Your task to perform on an android device: read, delete, or share a saved page in the chrome app Image 0: 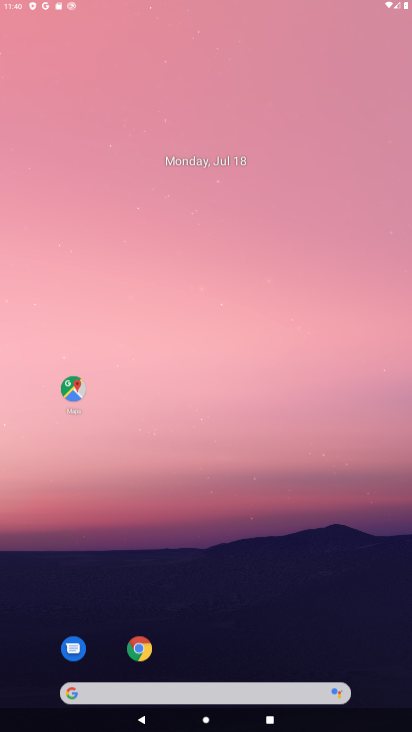
Step 0: click (261, 276)
Your task to perform on an android device: read, delete, or share a saved page in the chrome app Image 1: 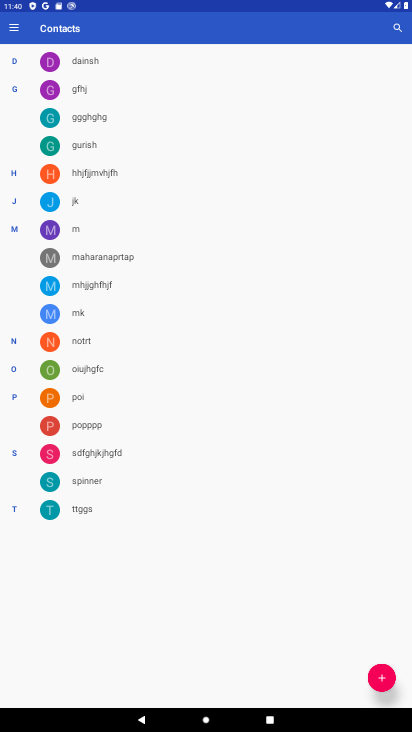
Step 1: press home button
Your task to perform on an android device: read, delete, or share a saved page in the chrome app Image 2: 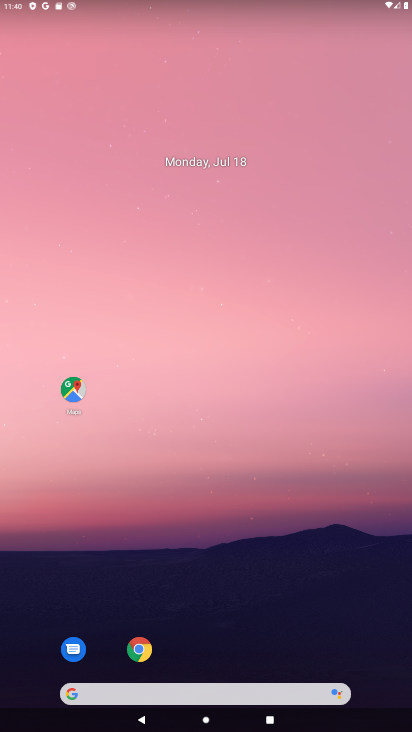
Step 2: drag from (246, 656) to (299, 176)
Your task to perform on an android device: read, delete, or share a saved page in the chrome app Image 3: 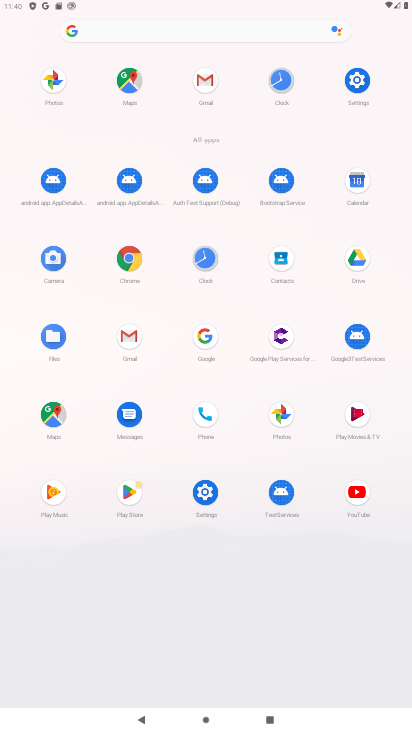
Step 3: click (120, 252)
Your task to perform on an android device: read, delete, or share a saved page in the chrome app Image 4: 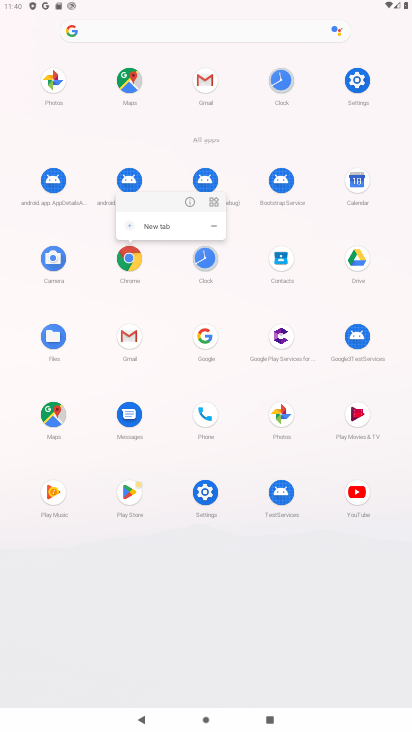
Step 4: click (129, 257)
Your task to perform on an android device: read, delete, or share a saved page in the chrome app Image 5: 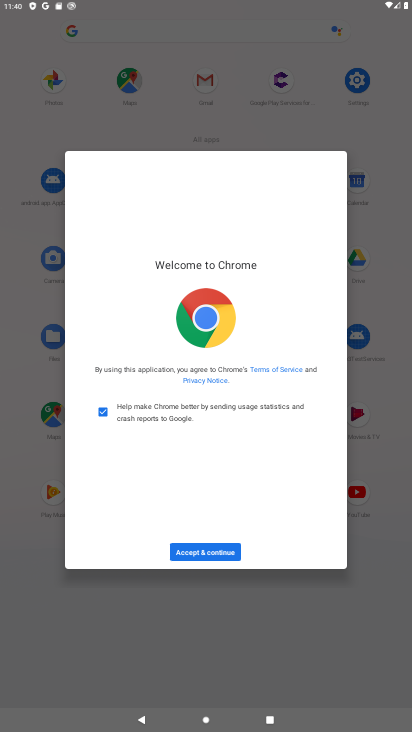
Step 5: click (223, 543)
Your task to perform on an android device: read, delete, or share a saved page in the chrome app Image 6: 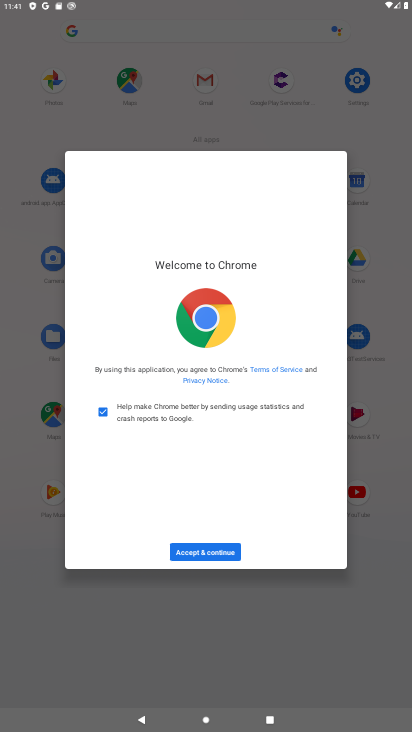
Step 6: click (228, 556)
Your task to perform on an android device: read, delete, or share a saved page in the chrome app Image 7: 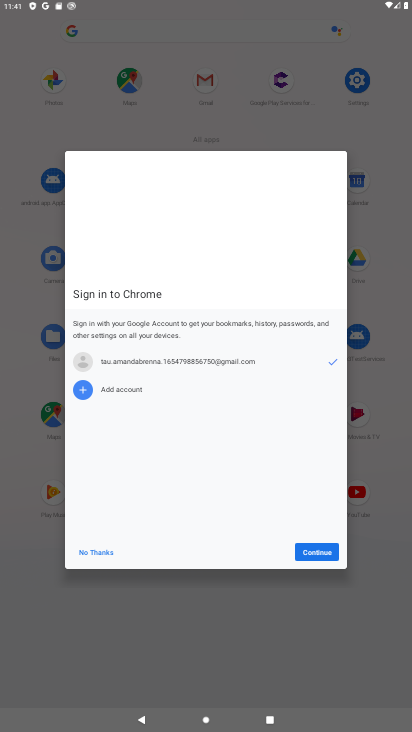
Step 7: click (311, 549)
Your task to perform on an android device: read, delete, or share a saved page in the chrome app Image 8: 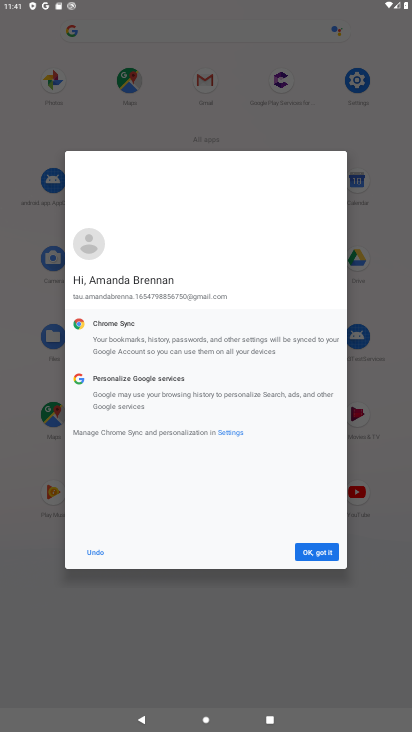
Step 8: click (311, 549)
Your task to perform on an android device: read, delete, or share a saved page in the chrome app Image 9: 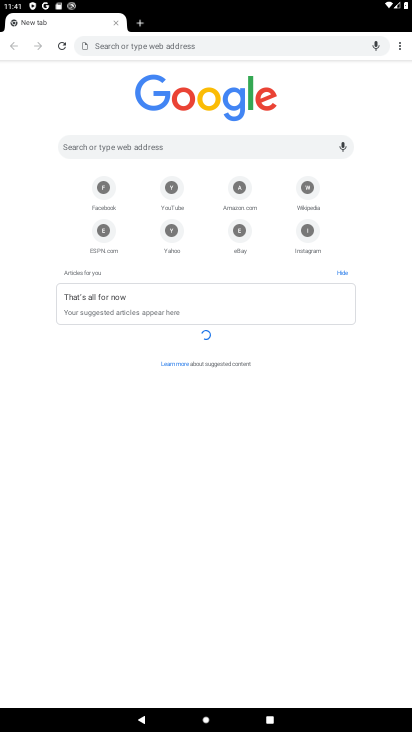
Step 9: drag from (400, 43) to (340, 164)
Your task to perform on an android device: read, delete, or share a saved page in the chrome app Image 10: 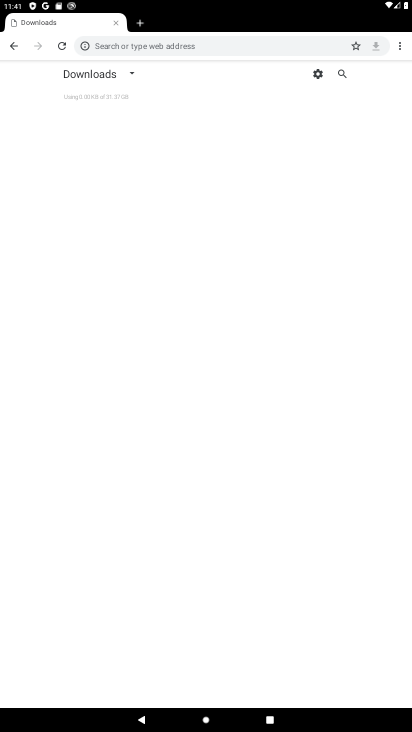
Step 10: click (90, 82)
Your task to perform on an android device: read, delete, or share a saved page in the chrome app Image 11: 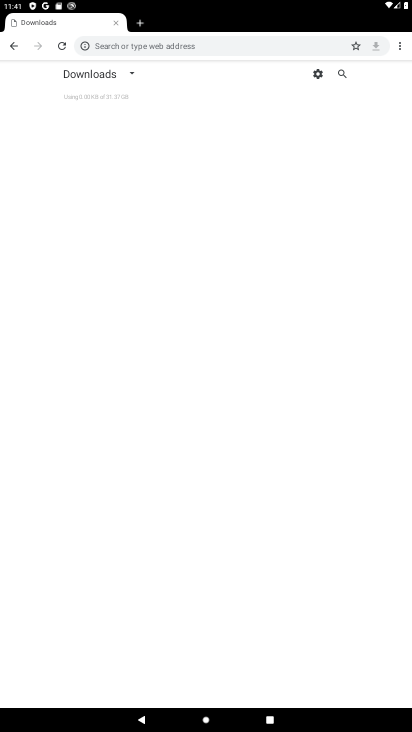
Step 11: click (126, 75)
Your task to perform on an android device: read, delete, or share a saved page in the chrome app Image 12: 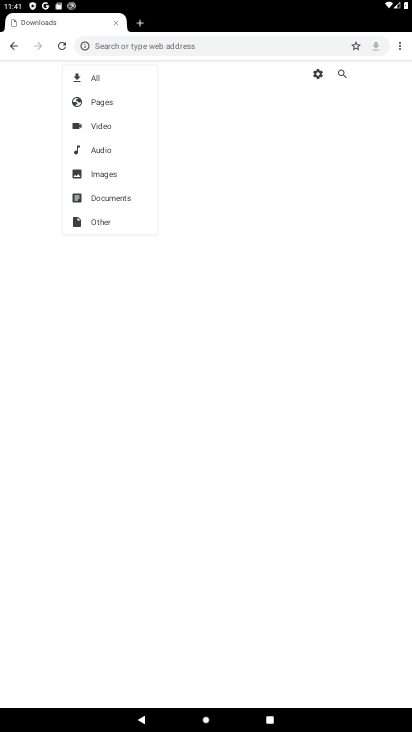
Step 12: click (113, 106)
Your task to perform on an android device: read, delete, or share a saved page in the chrome app Image 13: 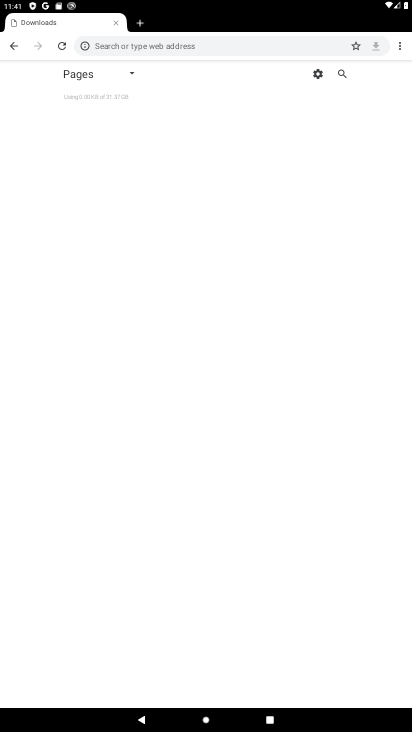
Step 13: task complete